Your task to perform on an android device: Open Google Chrome and click the shortcut for Amazon.com Image 0: 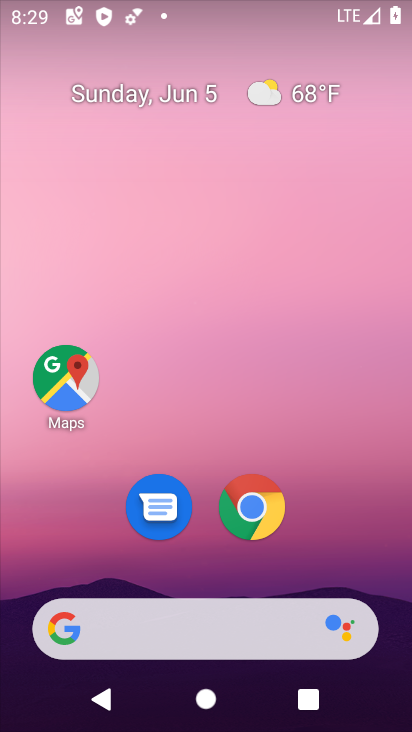
Step 0: click (258, 523)
Your task to perform on an android device: Open Google Chrome and click the shortcut for Amazon.com Image 1: 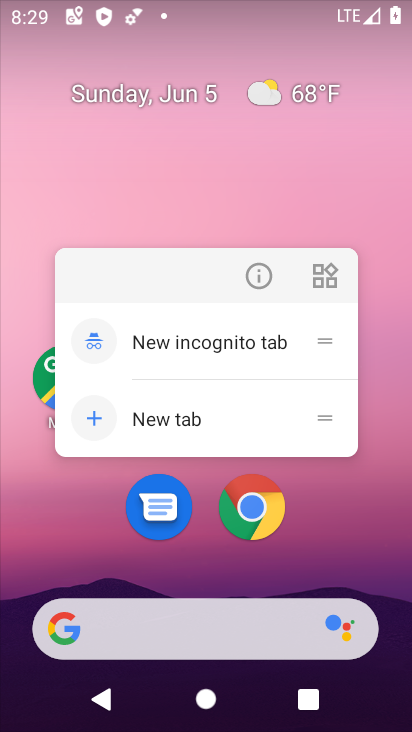
Step 1: click (259, 523)
Your task to perform on an android device: Open Google Chrome and click the shortcut for Amazon.com Image 2: 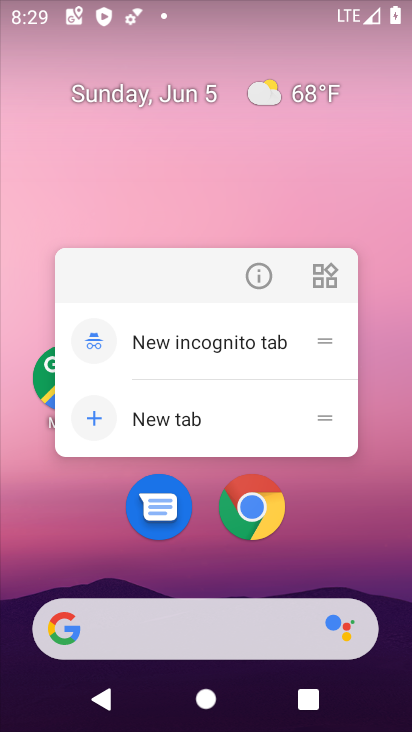
Step 2: click (262, 526)
Your task to perform on an android device: Open Google Chrome and click the shortcut for Amazon.com Image 3: 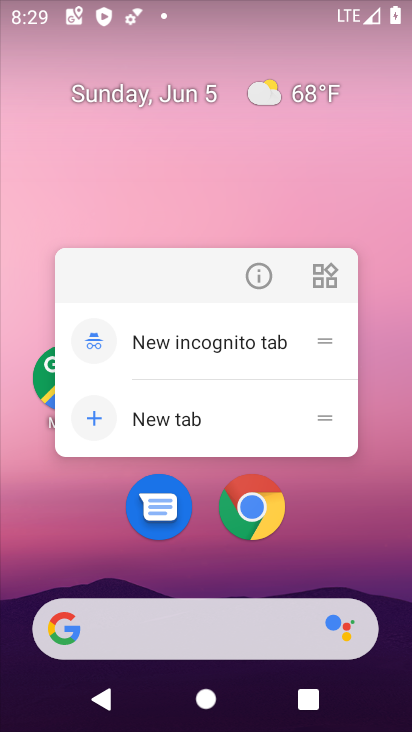
Step 3: click (250, 504)
Your task to perform on an android device: Open Google Chrome and click the shortcut for Amazon.com Image 4: 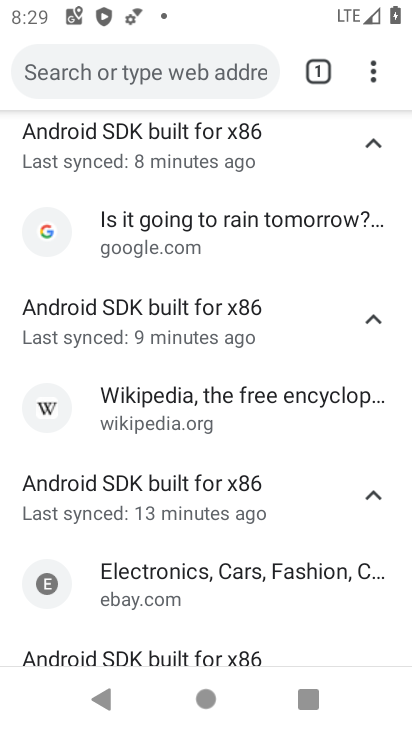
Step 4: click (359, 75)
Your task to perform on an android device: Open Google Chrome and click the shortcut for Amazon.com Image 5: 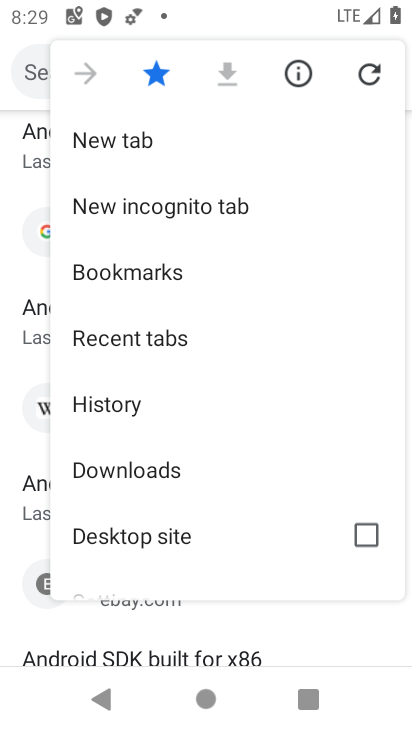
Step 5: click (131, 153)
Your task to perform on an android device: Open Google Chrome and click the shortcut for Amazon.com Image 6: 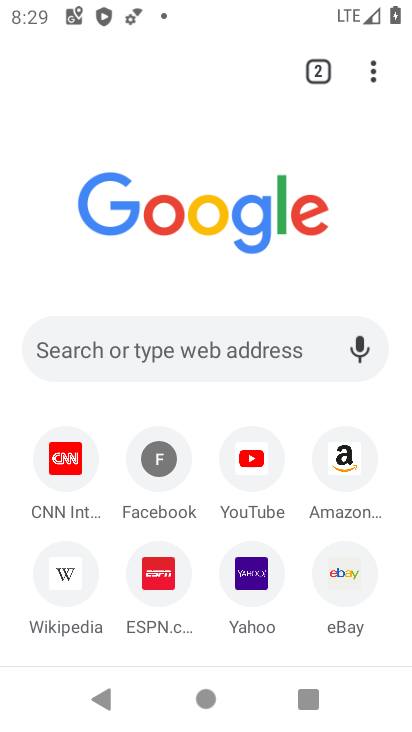
Step 6: click (345, 470)
Your task to perform on an android device: Open Google Chrome and click the shortcut for Amazon.com Image 7: 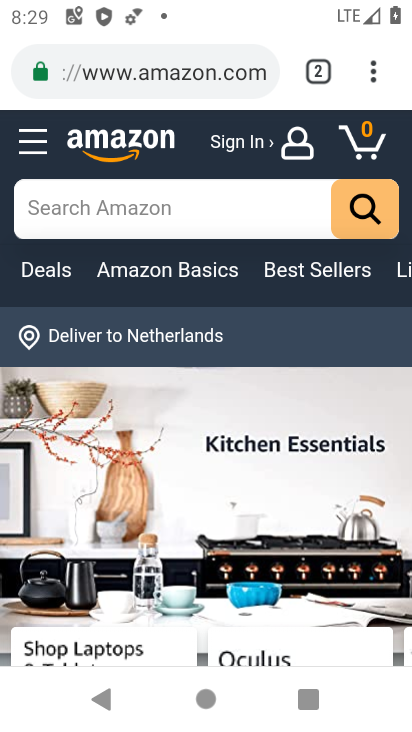
Step 7: task complete